Your task to perform on an android device: open app "Venmo" (install if not already installed) and enter user name: "bleedings@gmail.com" and password: "copied" Image 0: 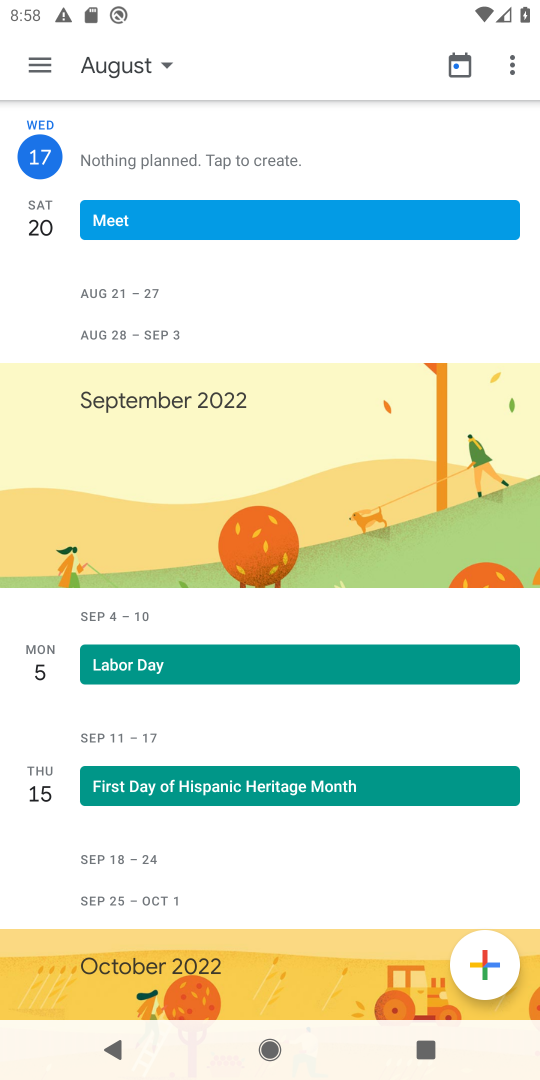
Step 0: press home button
Your task to perform on an android device: open app "Venmo" (install if not already installed) and enter user name: "bleedings@gmail.com" and password: "copied" Image 1: 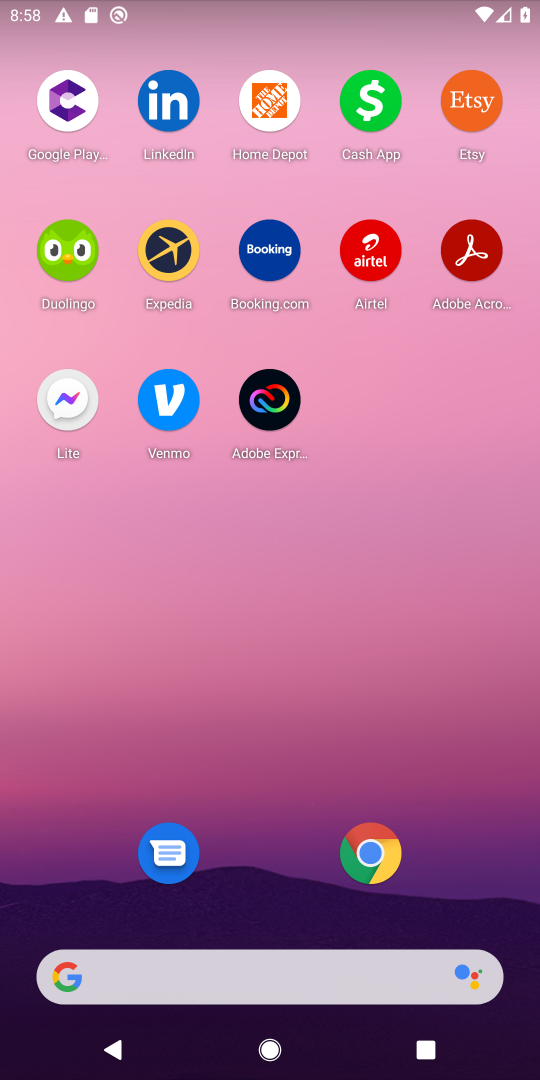
Step 1: drag from (259, 832) to (300, 214)
Your task to perform on an android device: open app "Venmo" (install if not already installed) and enter user name: "bleedings@gmail.com" and password: "copied" Image 2: 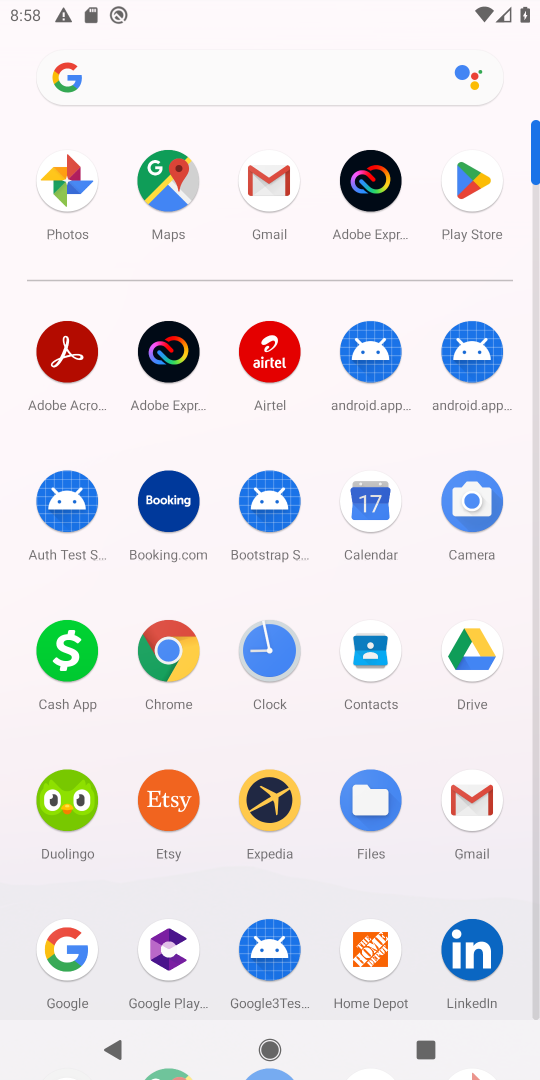
Step 2: click (480, 198)
Your task to perform on an android device: open app "Venmo" (install if not already installed) and enter user name: "bleedings@gmail.com" and password: "copied" Image 3: 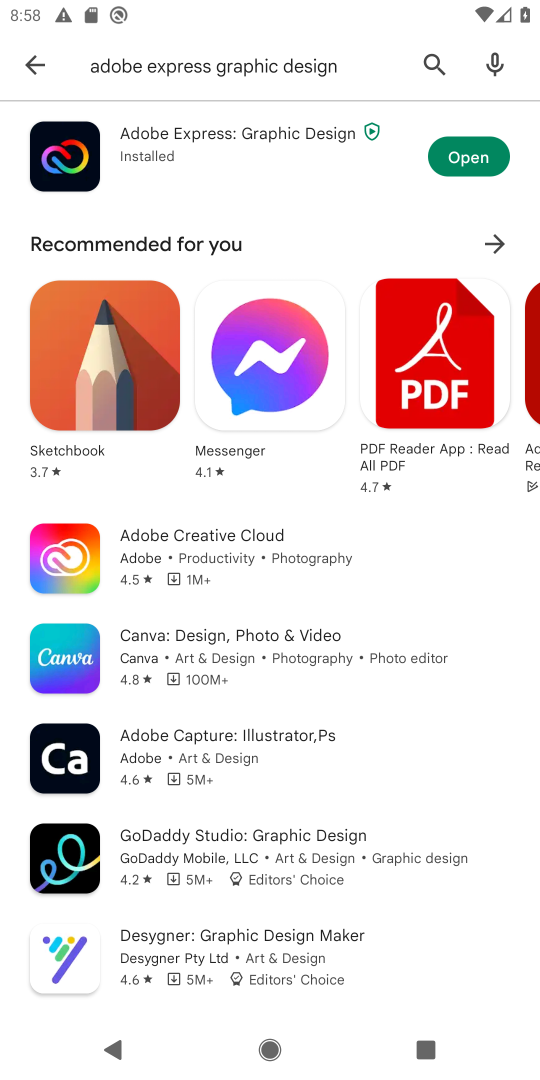
Step 3: click (427, 58)
Your task to perform on an android device: open app "Venmo" (install if not already installed) and enter user name: "bleedings@gmail.com" and password: "copied" Image 4: 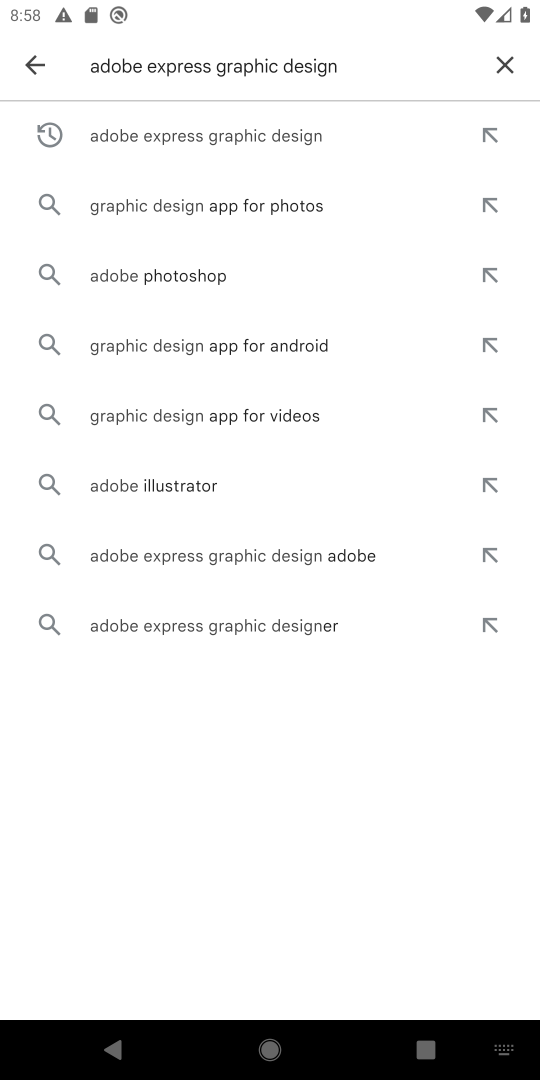
Step 4: click (498, 61)
Your task to perform on an android device: open app "Venmo" (install if not already installed) and enter user name: "bleedings@gmail.com" and password: "copied" Image 5: 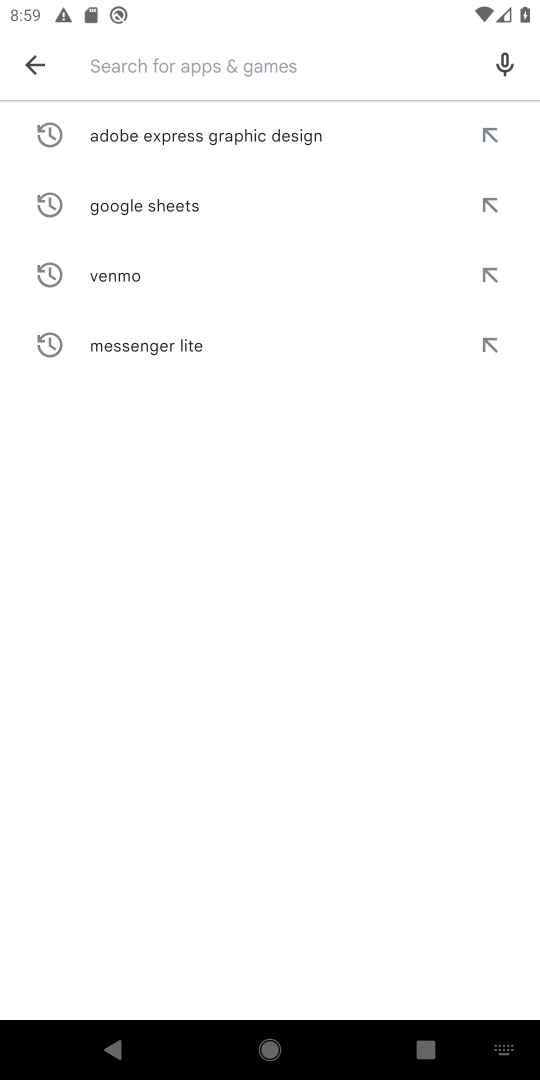
Step 5: type "Venmo"
Your task to perform on an android device: open app "Venmo" (install if not already installed) and enter user name: "bleedings@gmail.com" and password: "copied" Image 6: 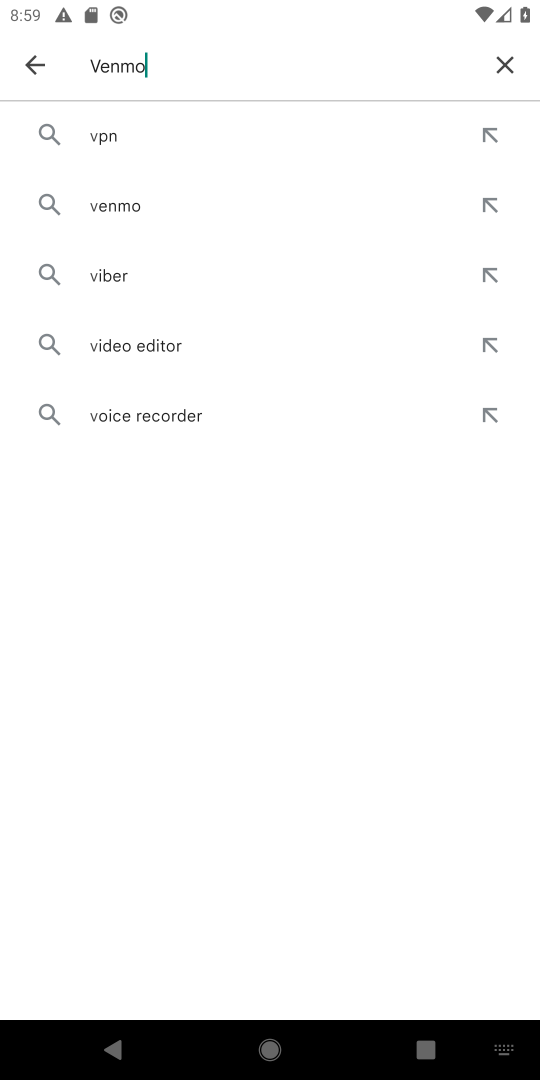
Step 6: type ""
Your task to perform on an android device: open app "Venmo" (install if not already installed) and enter user name: "bleedings@gmail.com" and password: "copied" Image 7: 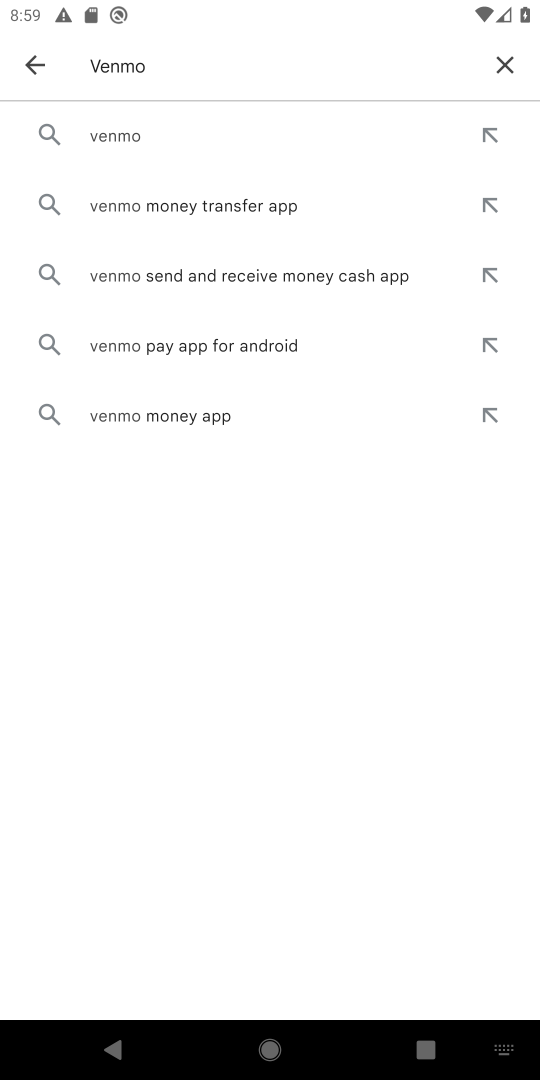
Step 7: click (156, 124)
Your task to perform on an android device: open app "Venmo" (install if not already installed) and enter user name: "bleedings@gmail.com" and password: "copied" Image 8: 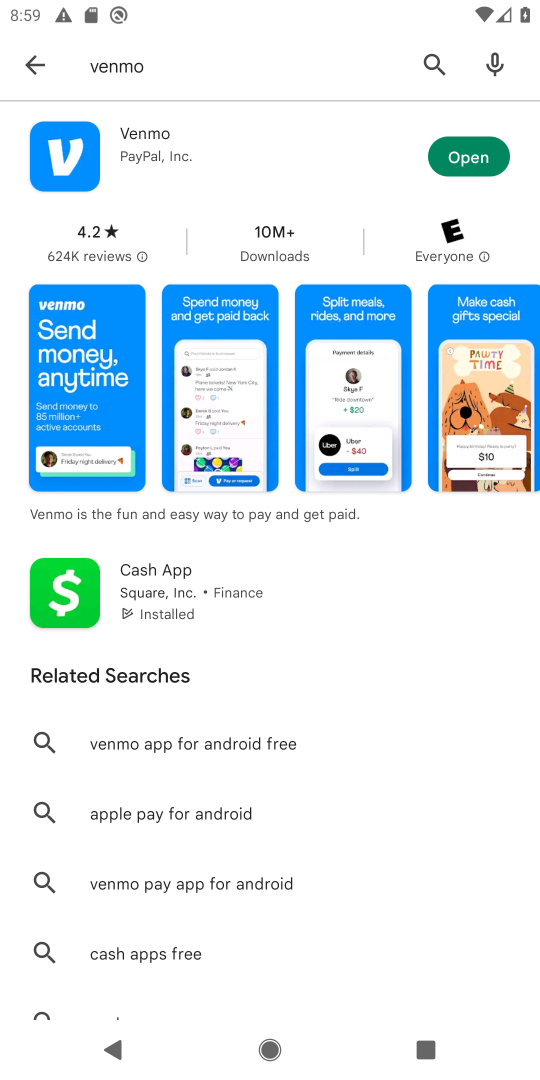
Step 8: click (461, 156)
Your task to perform on an android device: open app "Venmo" (install if not already installed) and enter user name: "bleedings@gmail.com" and password: "copied" Image 9: 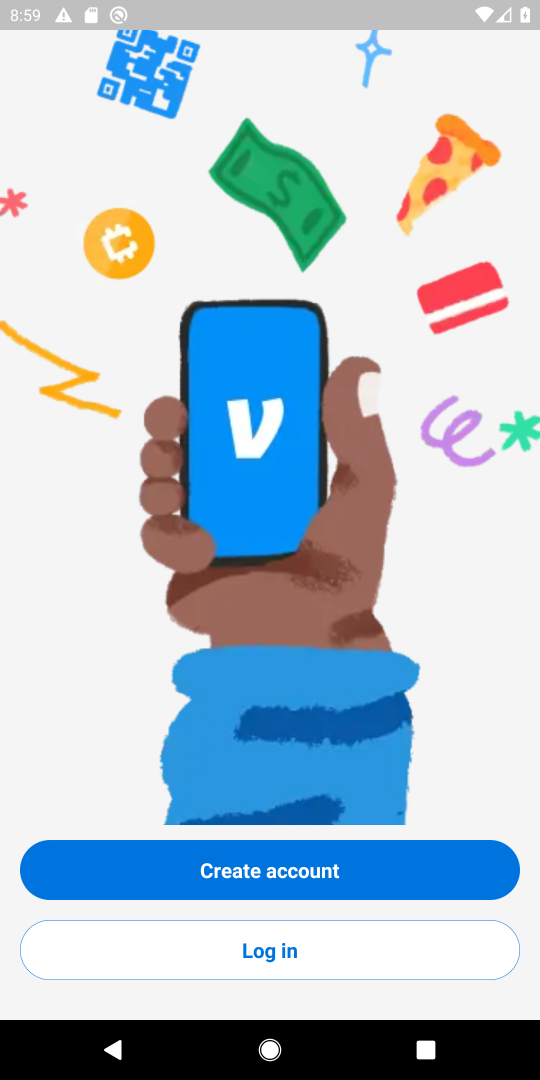
Step 9: click (301, 941)
Your task to perform on an android device: open app "Venmo" (install if not already installed) and enter user name: "bleedings@gmail.com" and password: "copied" Image 10: 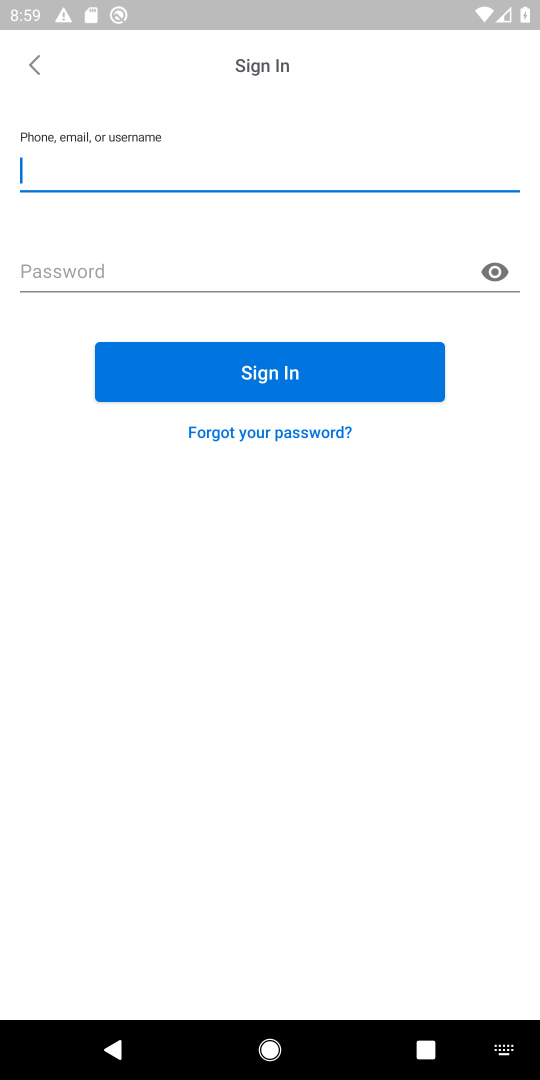
Step 10: click (259, 428)
Your task to perform on an android device: open app "Venmo" (install if not already installed) and enter user name: "bleedings@gmail.com" and password: "copied" Image 11: 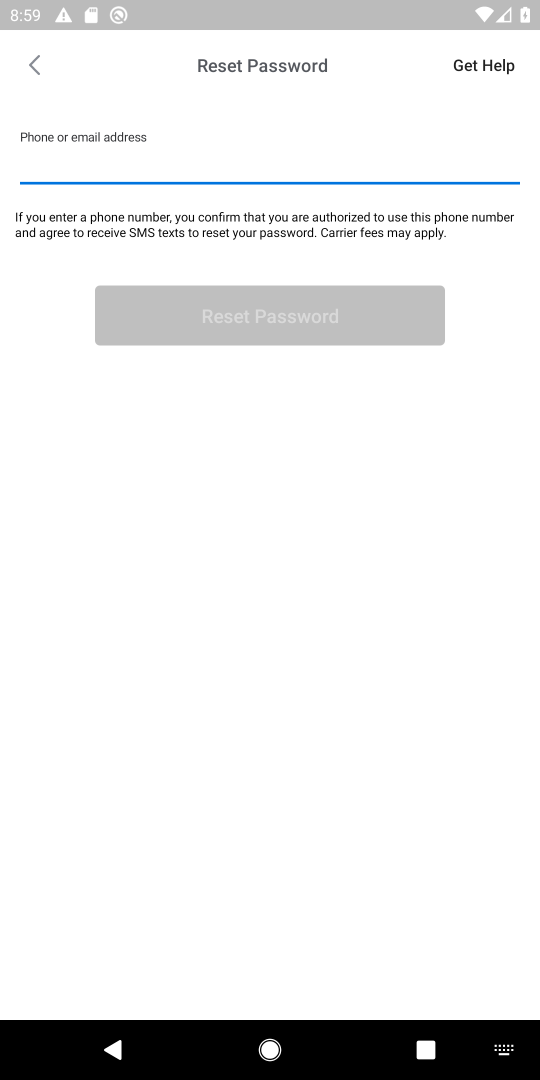
Step 11: task complete